Your task to perform on an android device: check battery use Image 0: 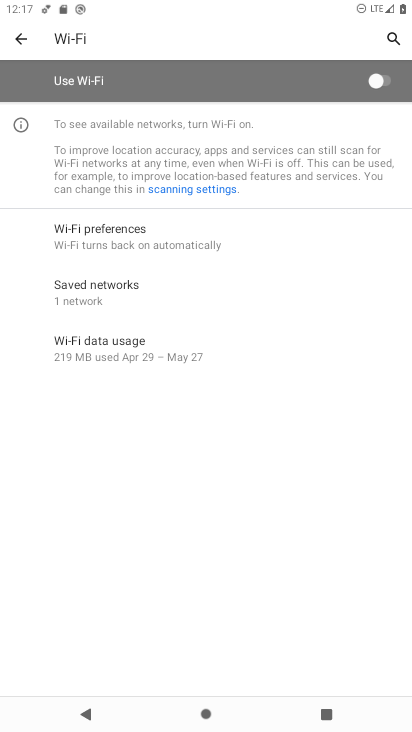
Step 0: press home button
Your task to perform on an android device: check battery use Image 1: 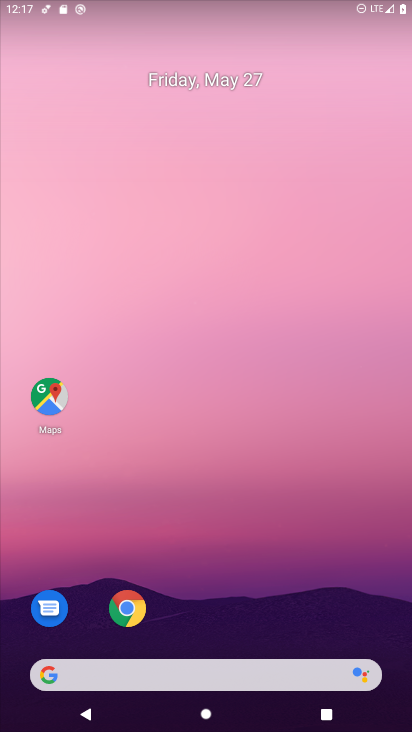
Step 1: drag from (142, 684) to (347, 153)
Your task to perform on an android device: check battery use Image 2: 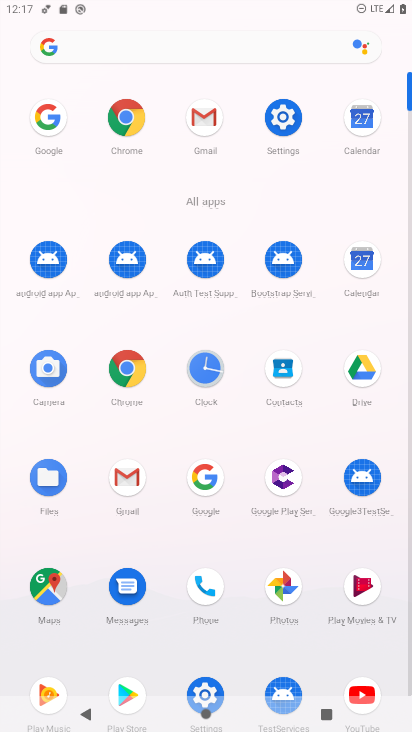
Step 2: click (282, 117)
Your task to perform on an android device: check battery use Image 3: 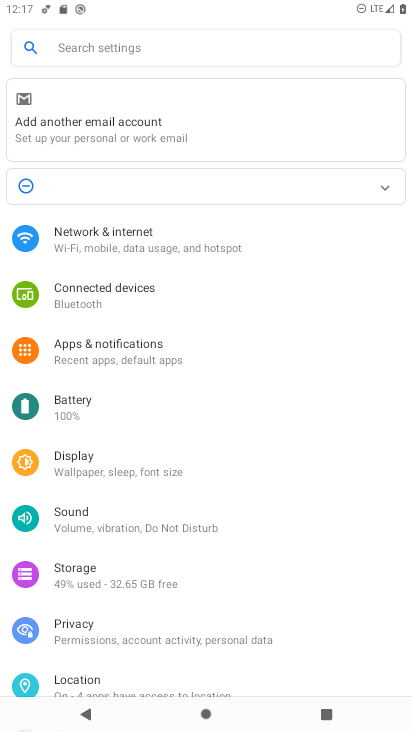
Step 3: click (74, 399)
Your task to perform on an android device: check battery use Image 4: 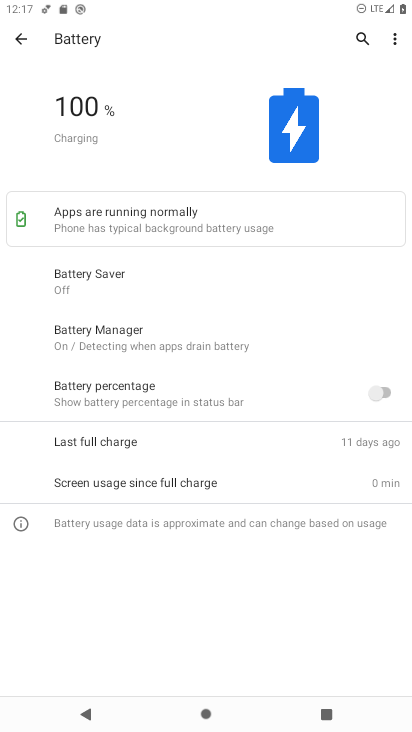
Step 4: click (395, 33)
Your task to perform on an android device: check battery use Image 5: 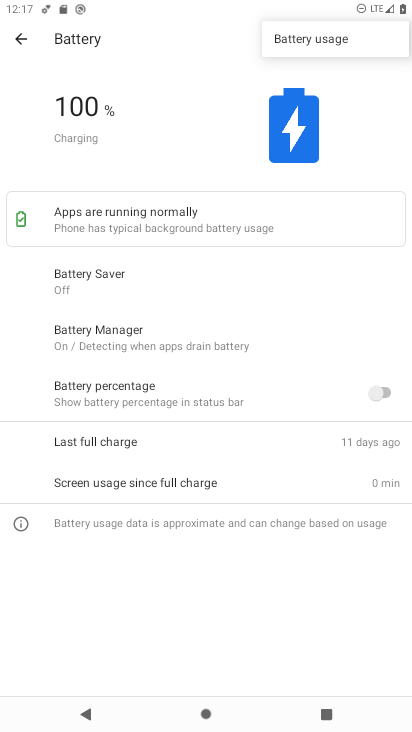
Step 5: click (288, 37)
Your task to perform on an android device: check battery use Image 6: 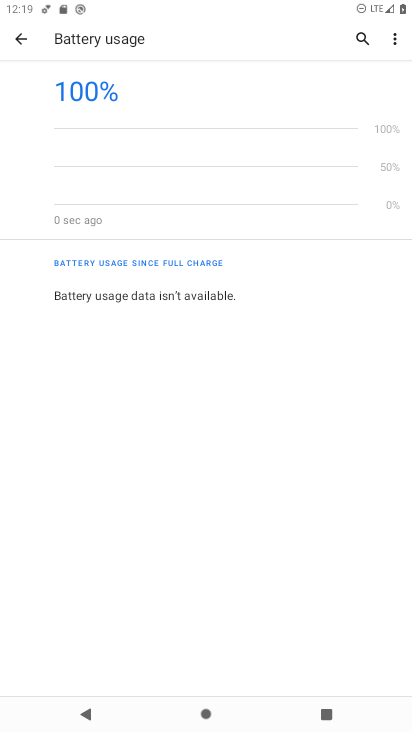
Step 6: task complete